Your task to perform on an android device: stop showing notifications on the lock screen Image 0: 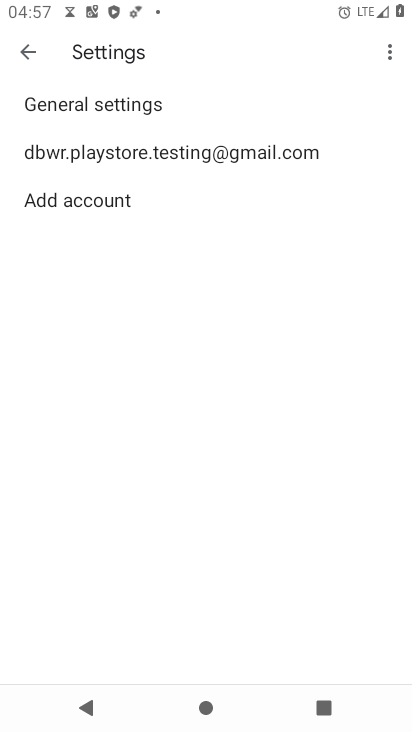
Step 0: press back button
Your task to perform on an android device: stop showing notifications on the lock screen Image 1: 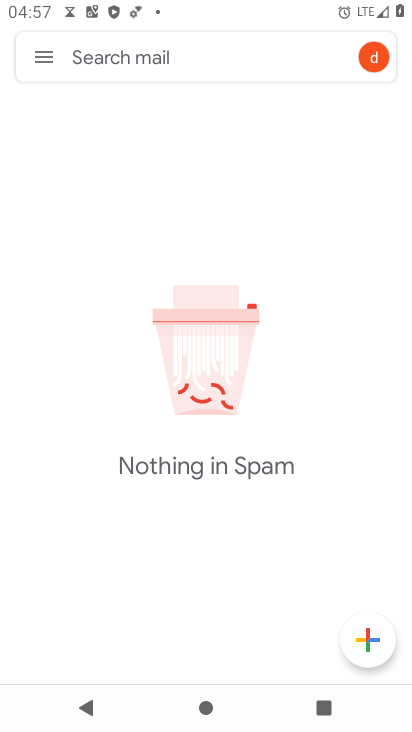
Step 1: press back button
Your task to perform on an android device: stop showing notifications on the lock screen Image 2: 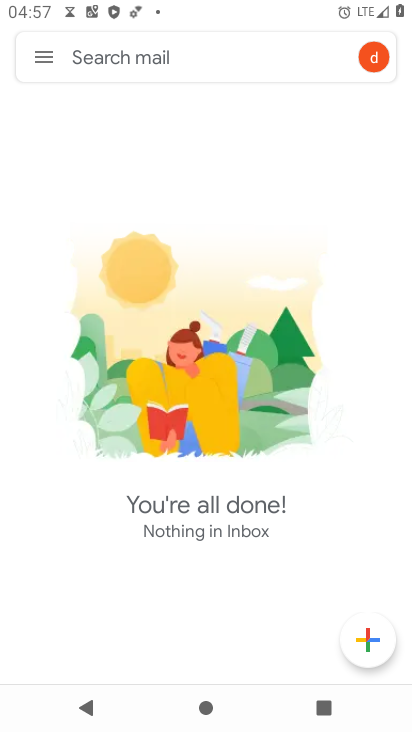
Step 2: press back button
Your task to perform on an android device: stop showing notifications on the lock screen Image 3: 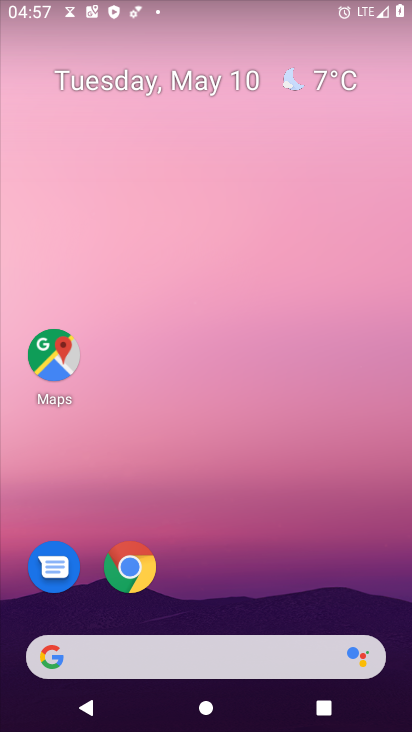
Step 3: drag from (233, 581) to (219, 70)
Your task to perform on an android device: stop showing notifications on the lock screen Image 4: 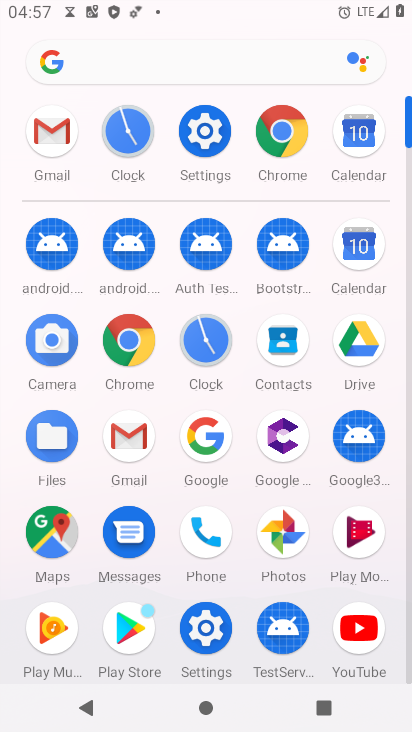
Step 4: click (202, 129)
Your task to perform on an android device: stop showing notifications on the lock screen Image 5: 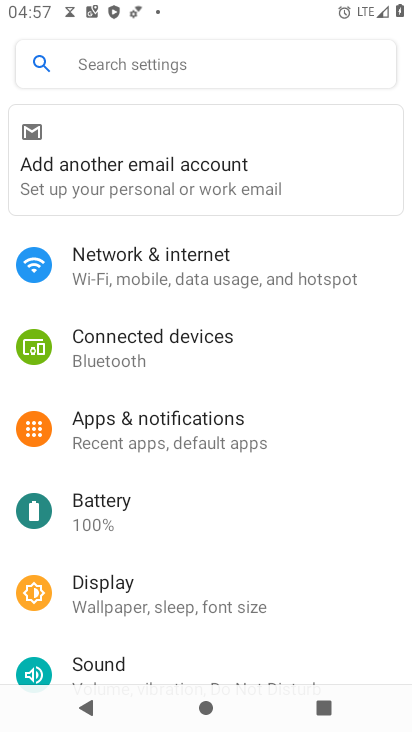
Step 5: click (153, 428)
Your task to perform on an android device: stop showing notifications on the lock screen Image 6: 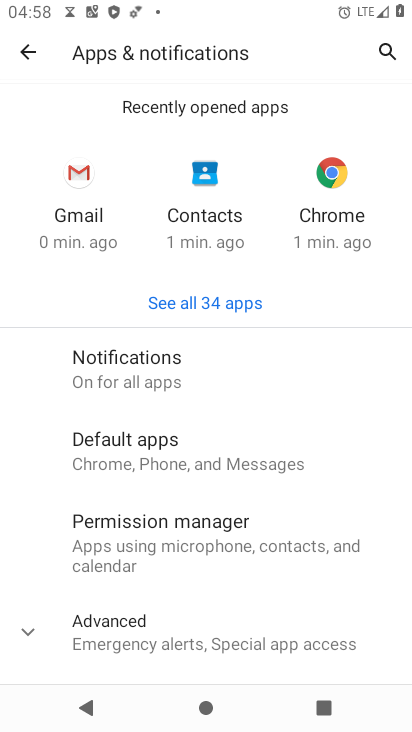
Step 6: click (145, 374)
Your task to perform on an android device: stop showing notifications on the lock screen Image 7: 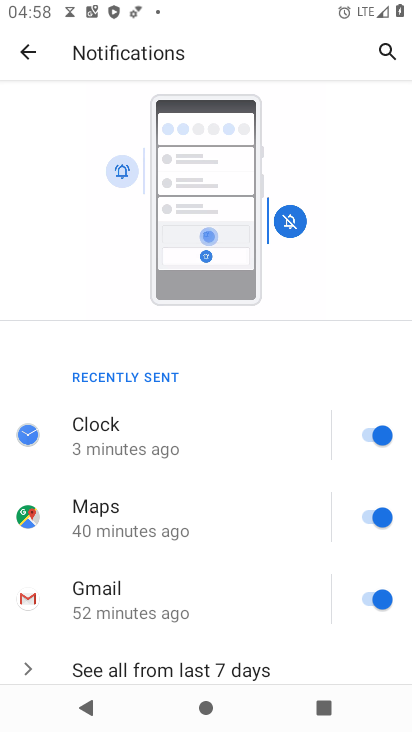
Step 7: drag from (139, 513) to (181, 424)
Your task to perform on an android device: stop showing notifications on the lock screen Image 8: 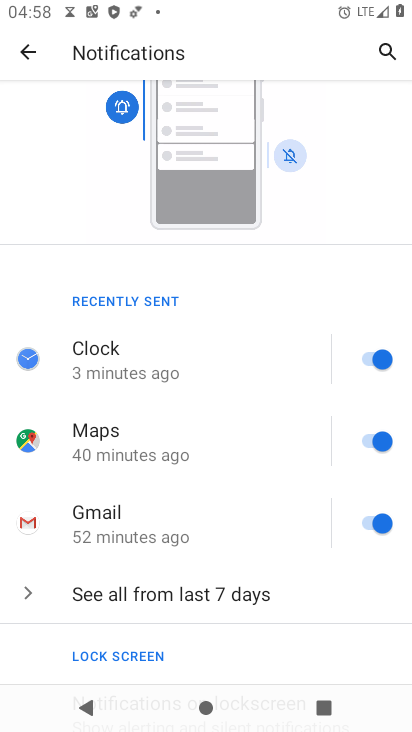
Step 8: drag from (156, 500) to (202, 405)
Your task to perform on an android device: stop showing notifications on the lock screen Image 9: 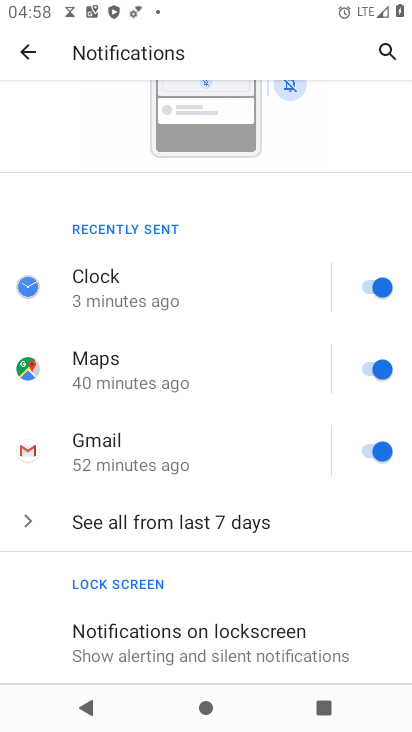
Step 9: drag from (181, 581) to (196, 483)
Your task to perform on an android device: stop showing notifications on the lock screen Image 10: 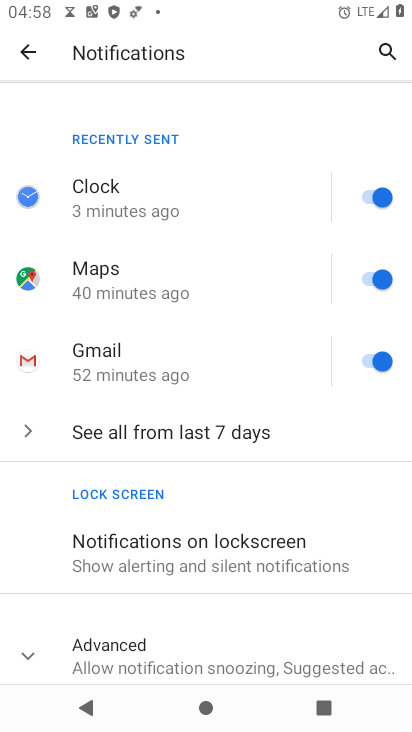
Step 10: click (172, 540)
Your task to perform on an android device: stop showing notifications on the lock screen Image 11: 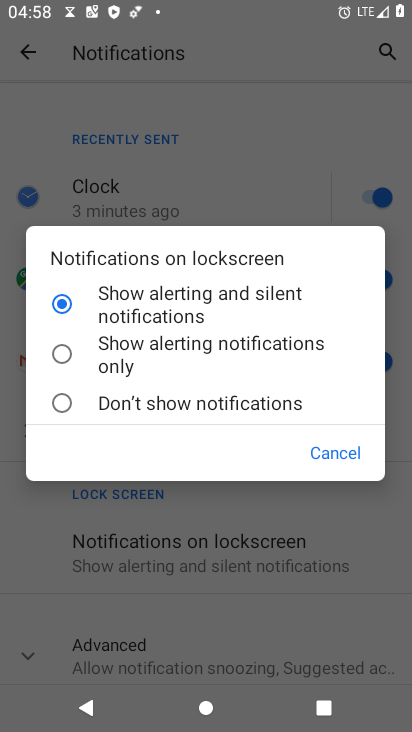
Step 11: click (64, 405)
Your task to perform on an android device: stop showing notifications on the lock screen Image 12: 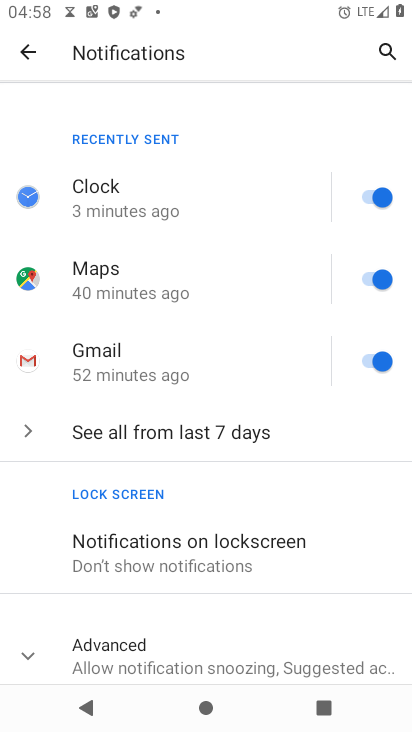
Step 12: task complete